Your task to perform on an android device: toggle airplane mode Image 0: 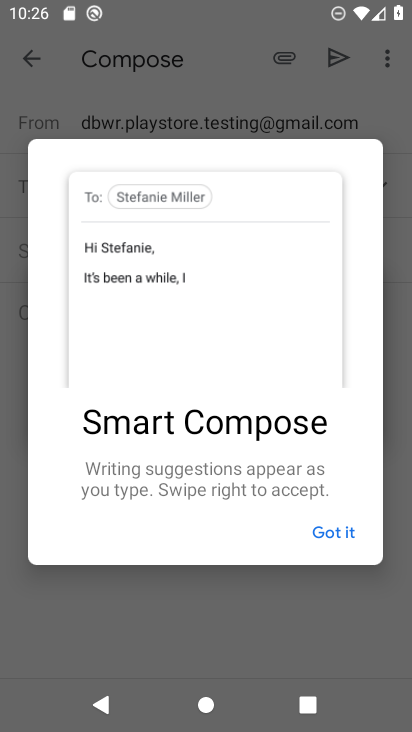
Step 0: press home button
Your task to perform on an android device: toggle airplane mode Image 1: 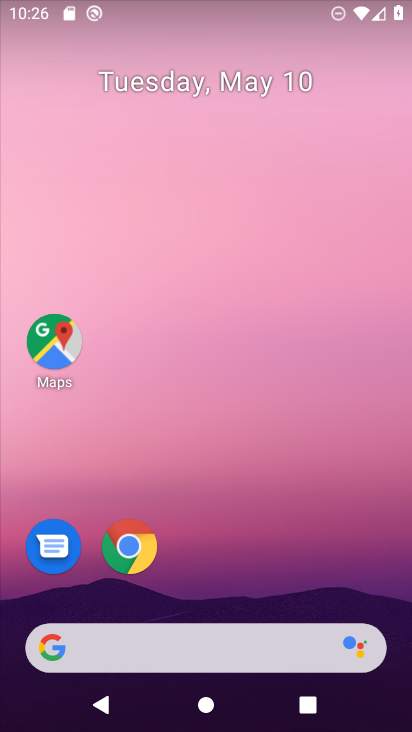
Step 1: drag from (299, 1) to (306, 500)
Your task to perform on an android device: toggle airplane mode Image 2: 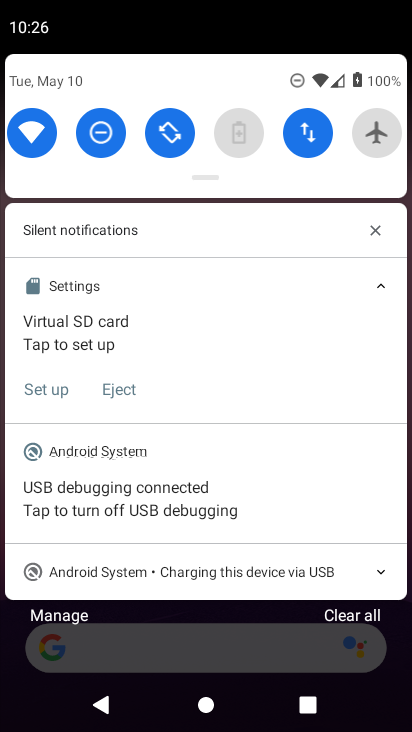
Step 2: click (381, 130)
Your task to perform on an android device: toggle airplane mode Image 3: 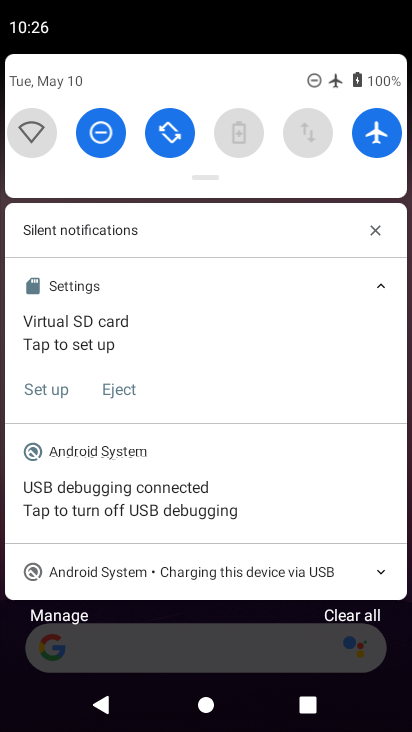
Step 3: task complete